Your task to perform on an android device: Open CNN.com Image 0: 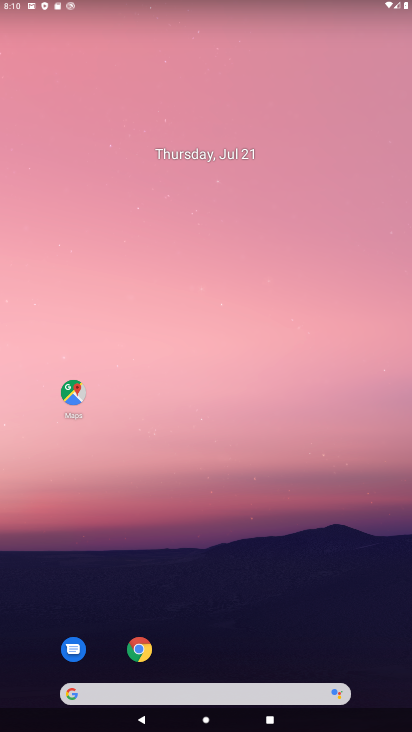
Step 0: click (138, 655)
Your task to perform on an android device: Open CNN.com Image 1: 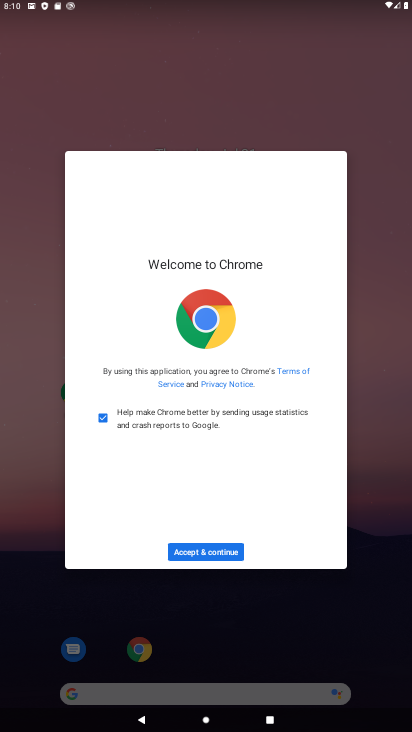
Step 1: click (210, 550)
Your task to perform on an android device: Open CNN.com Image 2: 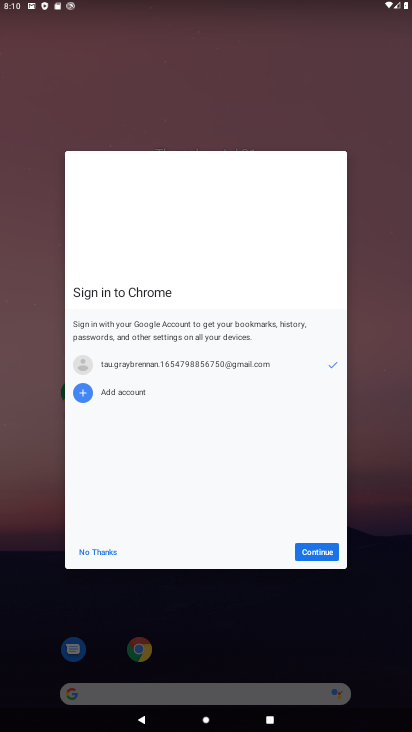
Step 2: click (312, 547)
Your task to perform on an android device: Open CNN.com Image 3: 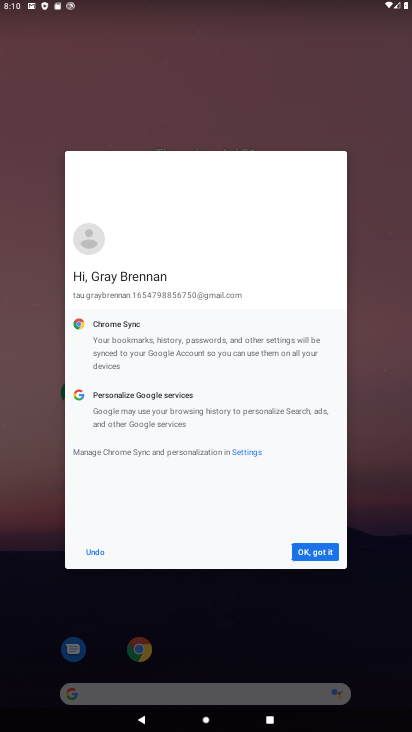
Step 3: click (312, 547)
Your task to perform on an android device: Open CNN.com Image 4: 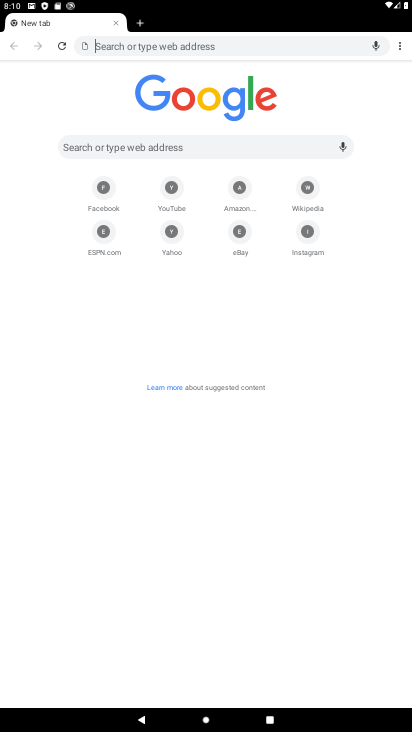
Step 4: click (132, 53)
Your task to perform on an android device: Open CNN.com Image 5: 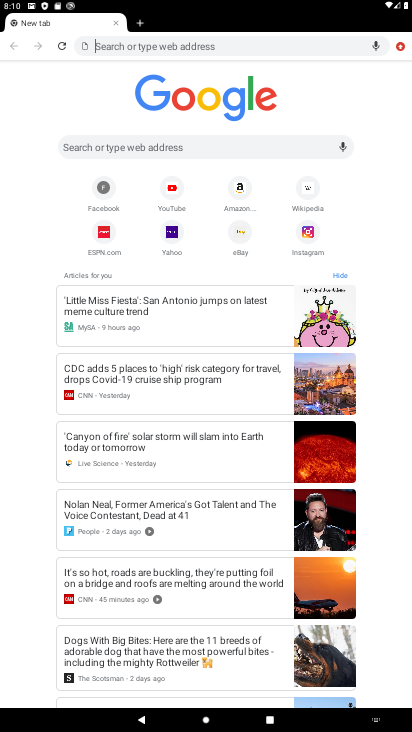
Step 5: type "cnn.com"
Your task to perform on an android device: Open CNN.com Image 6: 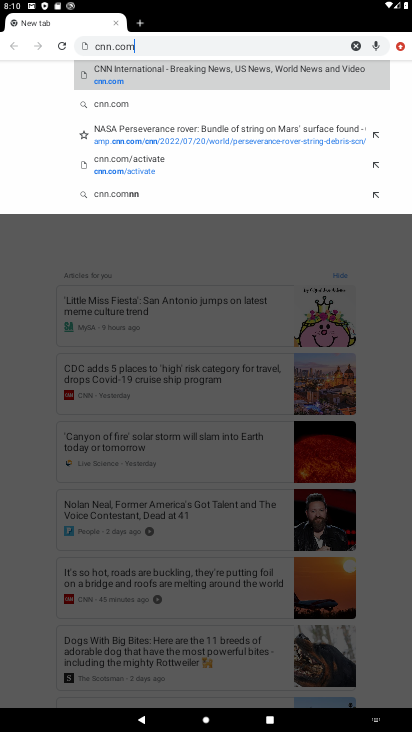
Step 6: click (148, 73)
Your task to perform on an android device: Open CNN.com Image 7: 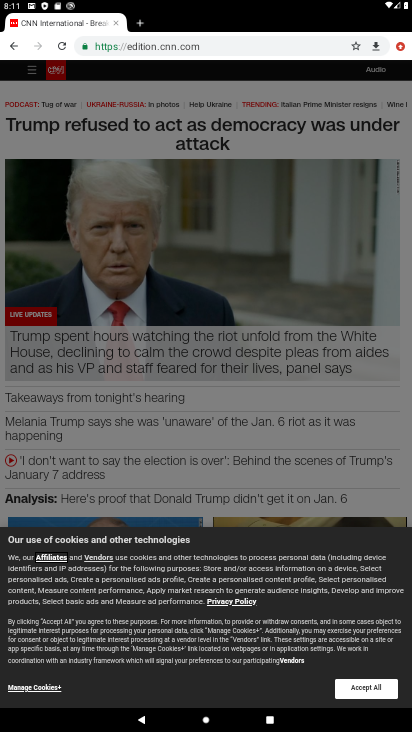
Step 7: task complete